Your task to perform on an android device: turn off sleep mode Image 0: 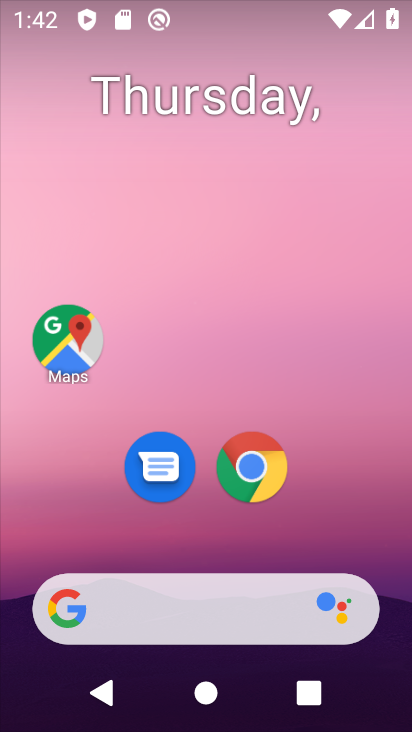
Step 0: drag from (353, 510) to (291, 147)
Your task to perform on an android device: turn off sleep mode Image 1: 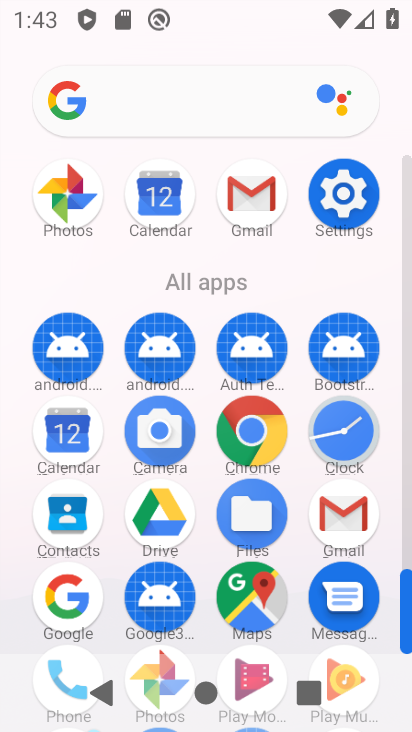
Step 1: click (345, 215)
Your task to perform on an android device: turn off sleep mode Image 2: 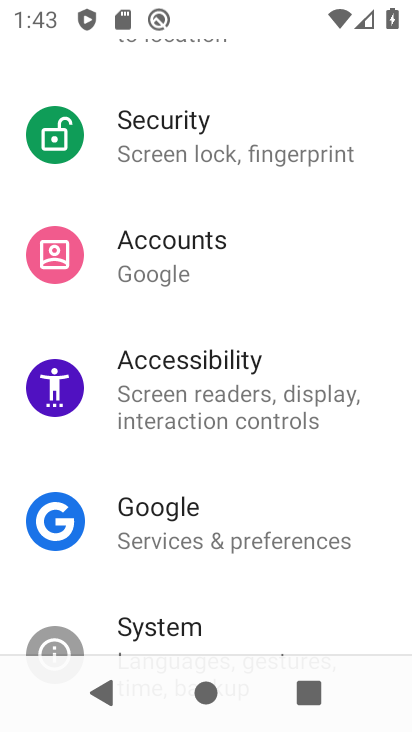
Step 2: drag from (224, 219) to (193, 687)
Your task to perform on an android device: turn off sleep mode Image 3: 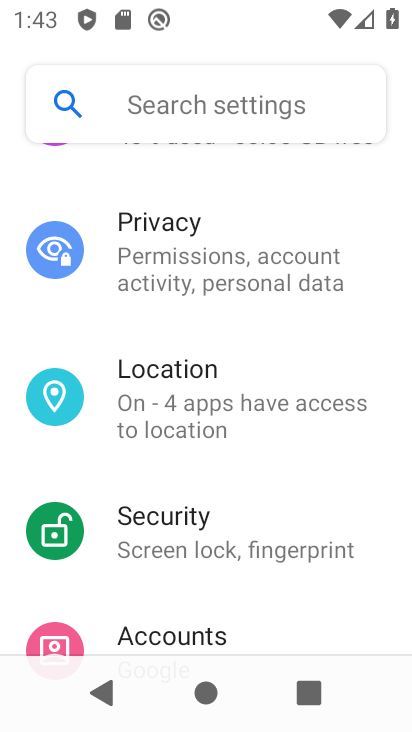
Step 3: drag from (192, 254) to (130, 729)
Your task to perform on an android device: turn off sleep mode Image 4: 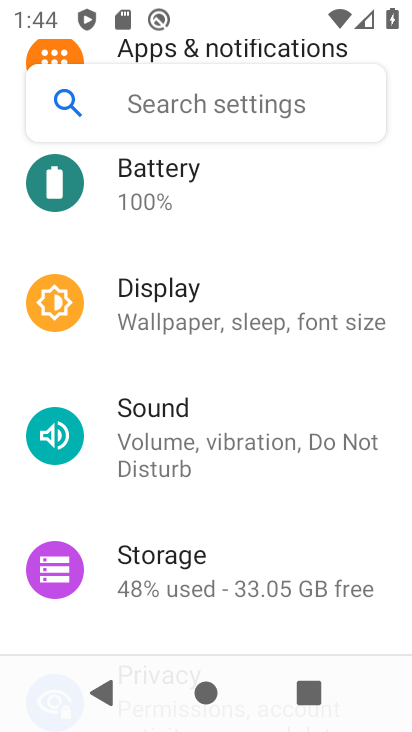
Step 4: click (250, 327)
Your task to perform on an android device: turn off sleep mode Image 5: 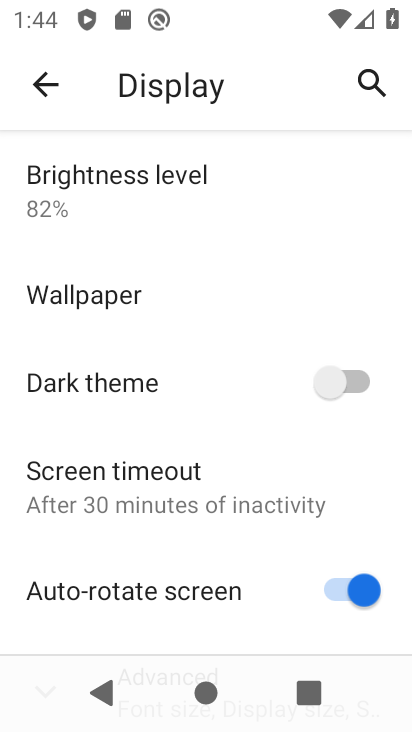
Step 5: task complete